Your task to perform on an android device: Clear all items from cart on ebay. Add logitech g933 to the cart on ebay, then select checkout. Image 0: 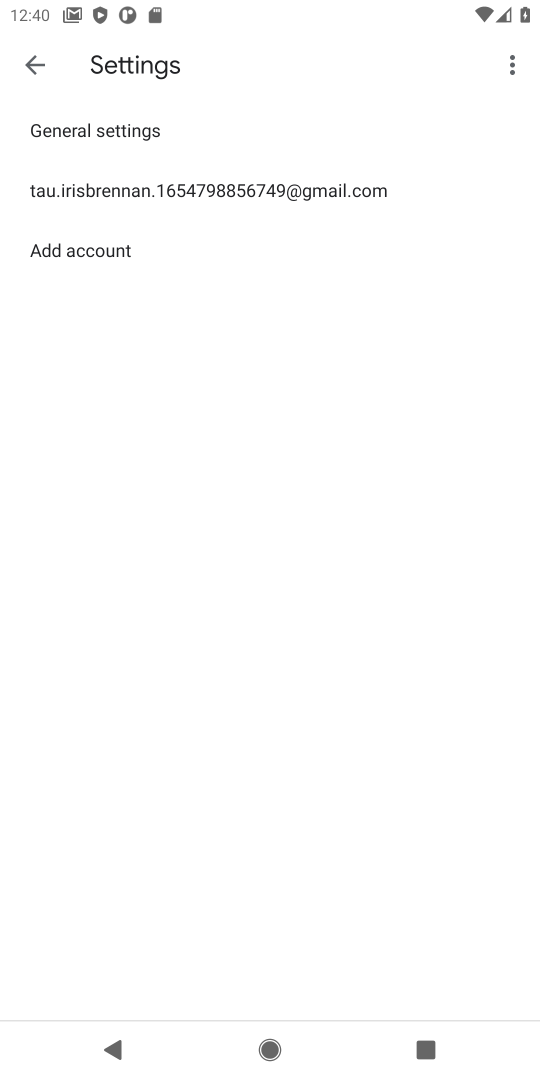
Step 0: press home button
Your task to perform on an android device: Clear all items from cart on ebay. Add logitech g933 to the cart on ebay, then select checkout. Image 1: 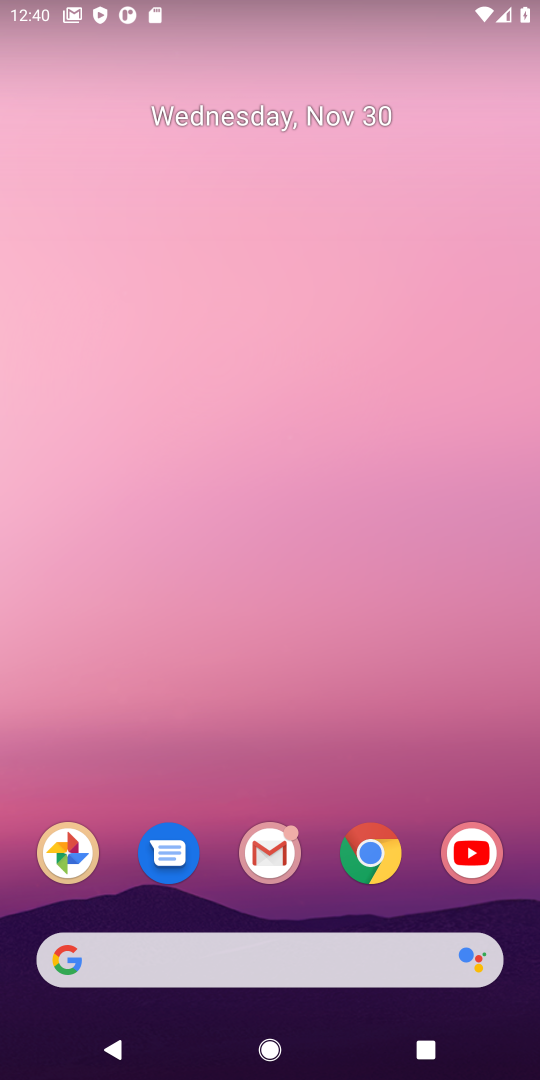
Step 1: click (375, 852)
Your task to perform on an android device: Clear all items from cart on ebay. Add logitech g933 to the cart on ebay, then select checkout. Image 2: 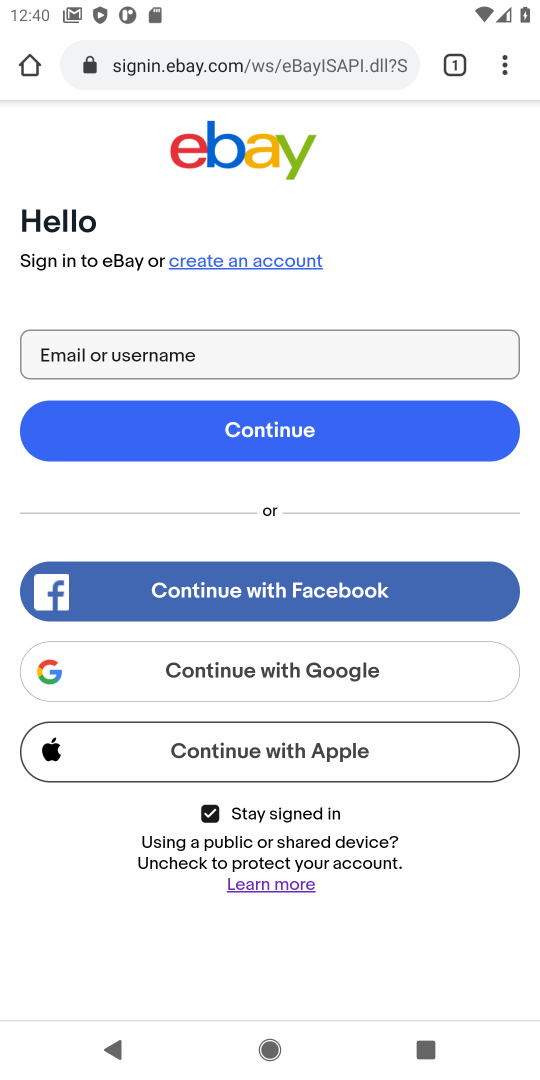
Step 2: press back button
Your task to perform on an android device: Clear all items from cart on ebay. Add logitech g933 to the cart on ebay, then select checkout. Image 3: 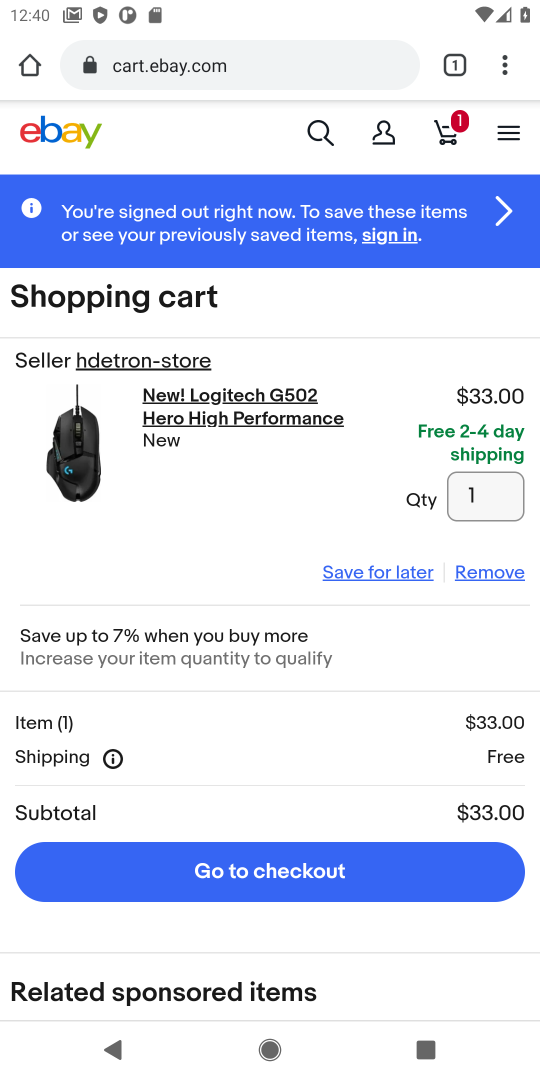
Step 3: click (485, 573)
Your task to perform on an android device: Clear all items from cart on ebay. Add logitech g933 to the cart on ebay, then select checkout. Image 4: 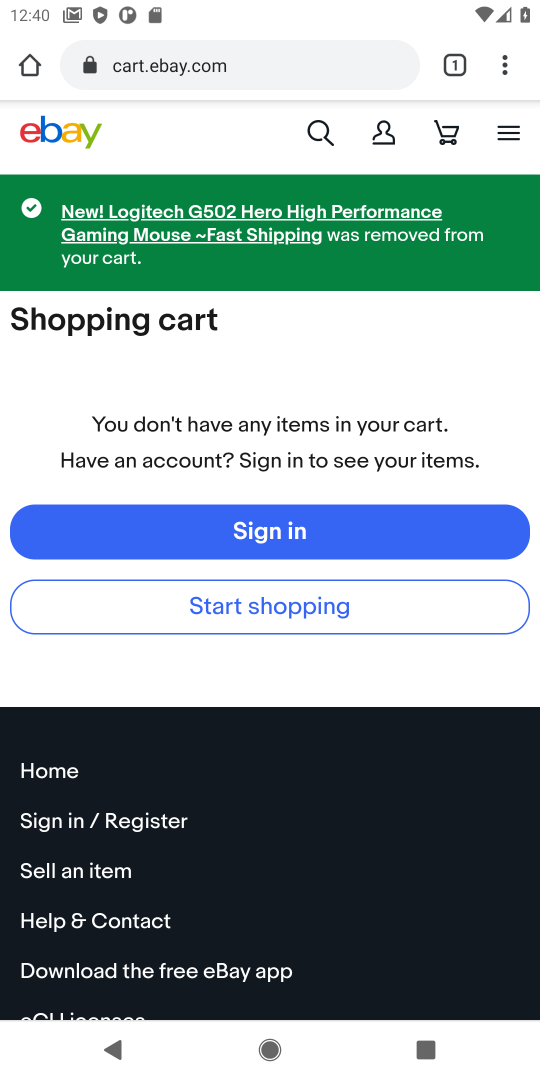
Step 4: click (319, 134)
Your task to perform on an android device: Clear all items from cart on ebay. Add logitech g933 to the cart on ebay, then select checkout. Image 5: 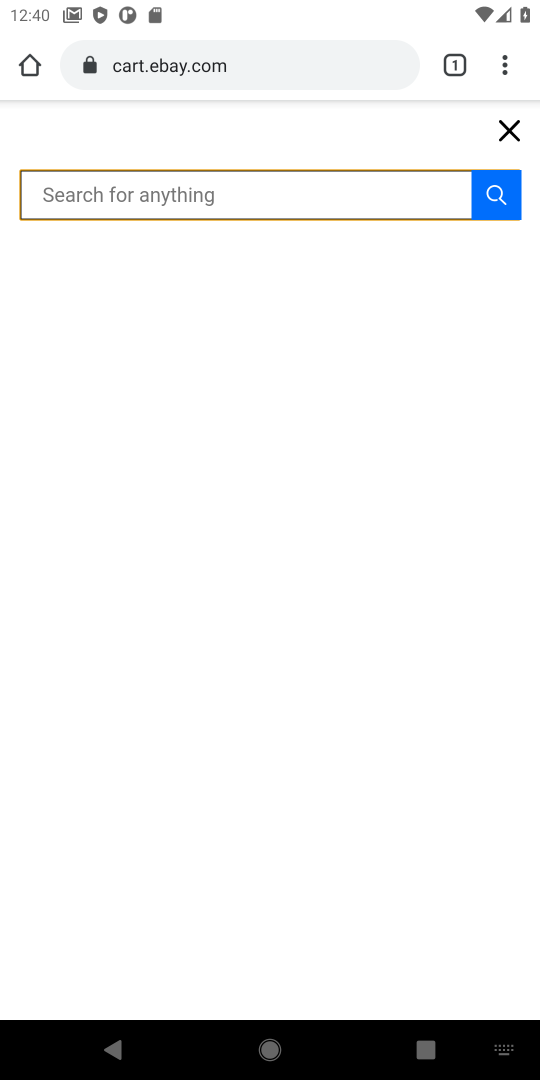
Step 5: type "logitech g933"
Your task to perform on an android device: Clear all items from cart on ebay. Add logitech g933 to the cart on ebay, then select checkout. Image 6: 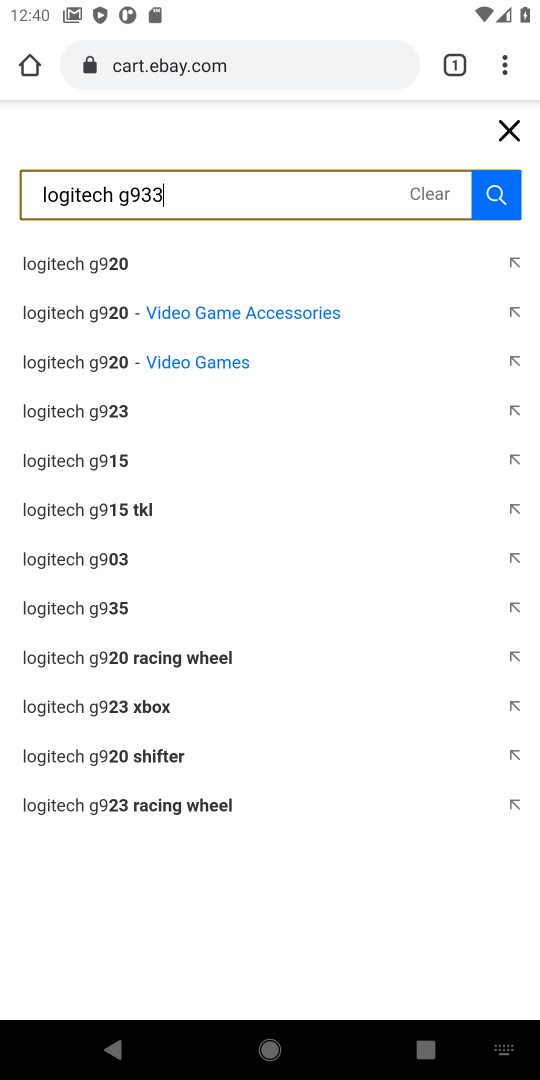
Step 6: click (499, 210)
Your task to perform on an android device: Clear all items from cart on ebay. Add logitech g933 to the cart on ebay, then select checkout. Image 7: 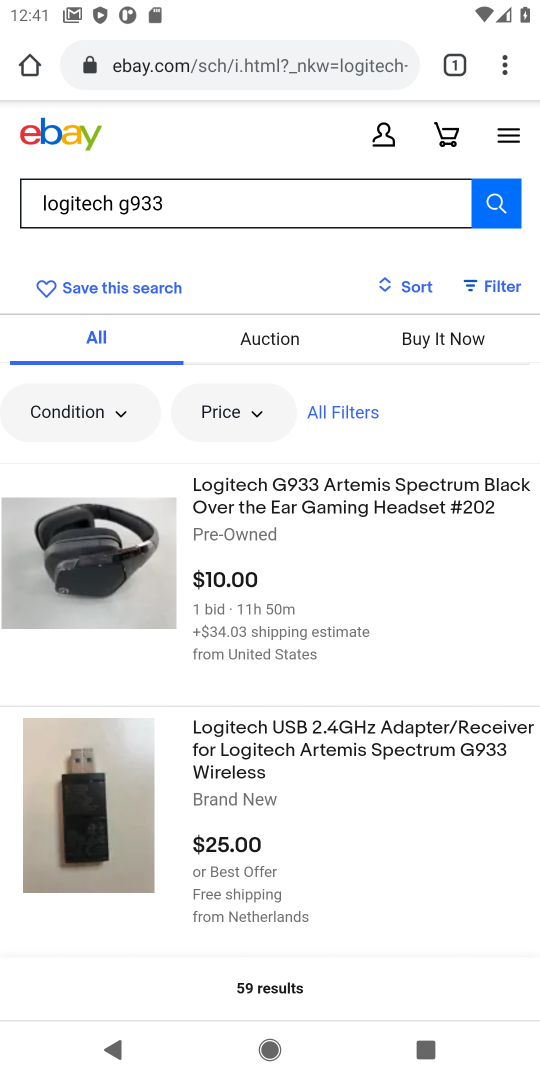
Step 7: drag from (338, 639) to (373, 481)
Your task to perform on an android device: Clear all items from cart on ebay. Add logitech g933 to the cart on ebay, then select checkout. Image 8: 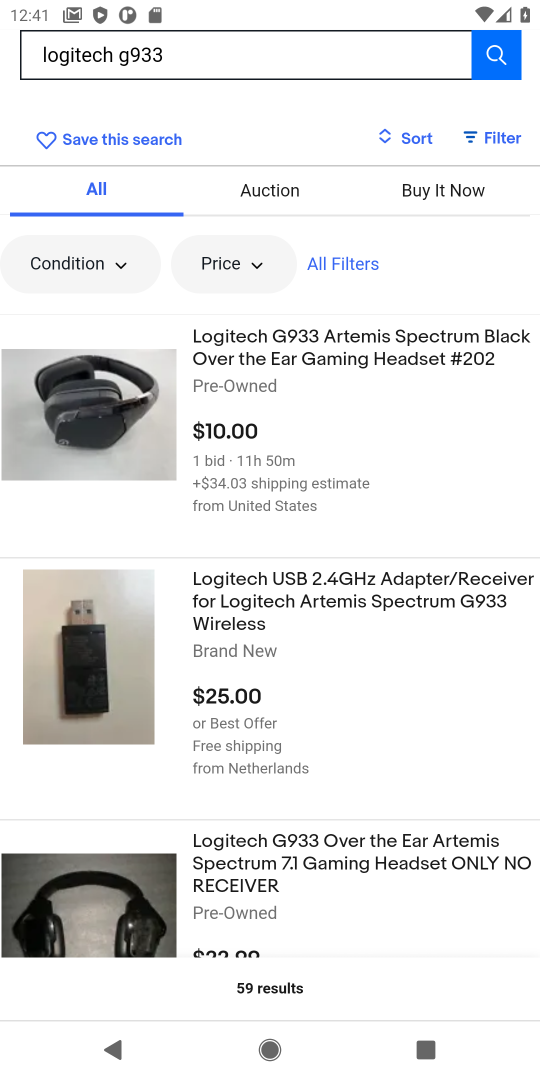
Step 8: click (212, 632)
Your task to perform on an android device: Clear all items from cart on ebay. Add logitech g933 to the cart on ebay, then select checkout. Image 9: 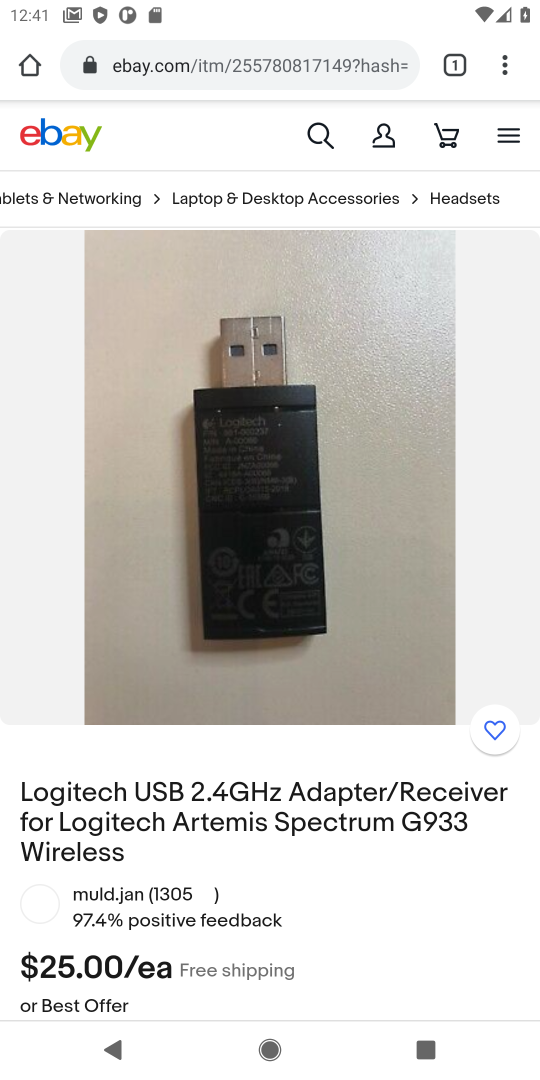
Step 9: drag from (254, 766) to (263, 308)
Your task to perform on an android device: Clear all items from cart on ebay. Add logitech g933 to the cart on ebay, then select checkout. Image 10: 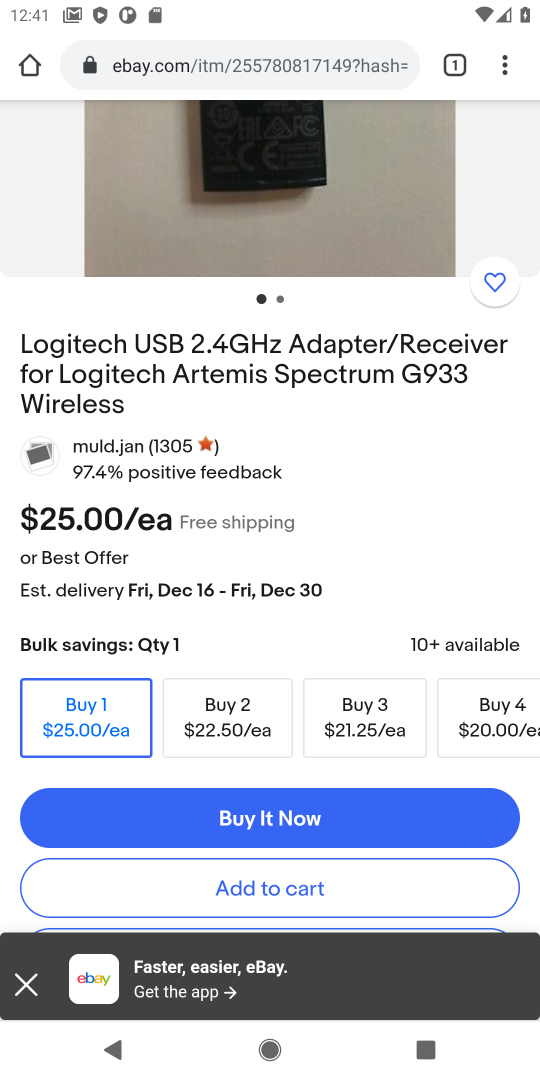
Step 10: click (228, 881)
Your task to perform on an android device: Clear all items from cart on ebay. Add logitech g933 to the cart on ebay, then select checkout. Image 11: 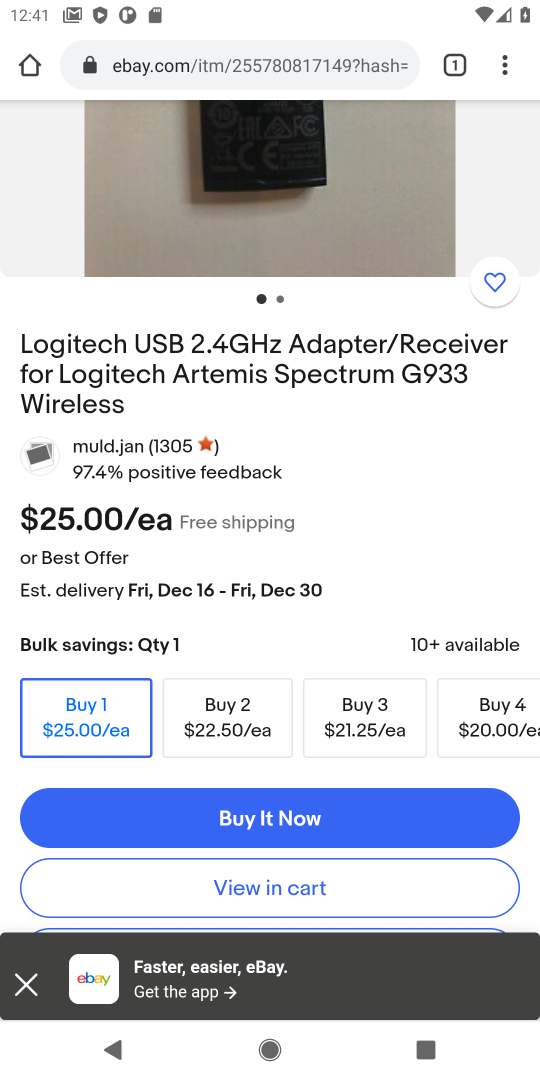
Step 11: click (228, 881)
Your task to perform on an android device: Clear all items from cart on ebay. Add logitech g933 to the cart on ebay, then select checkout. Image 12: 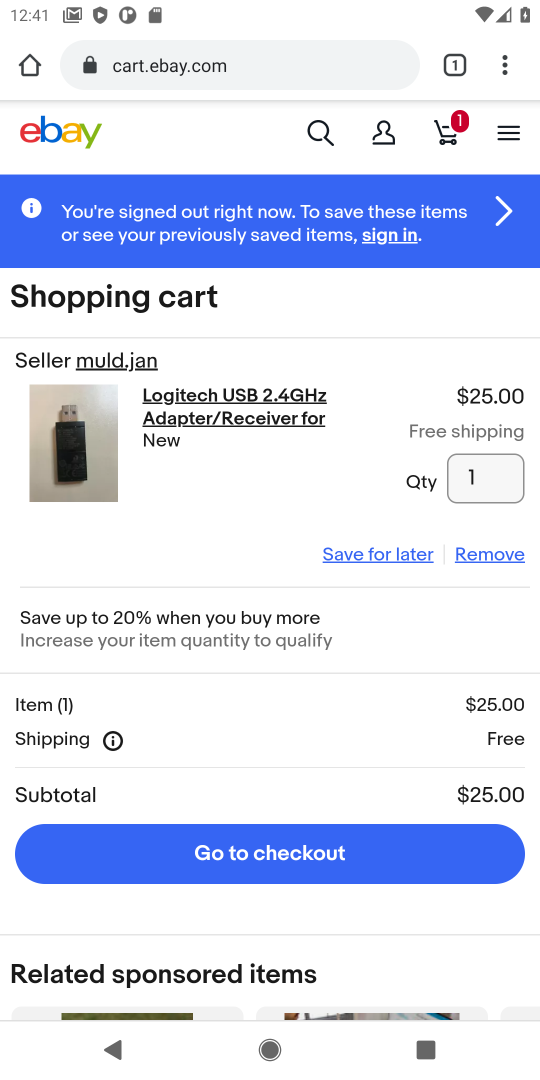
Step 12: click (259, 857)
Your task to perform on an android device: Clear all items from cart on ebay. Add logitech g933 to the cart on ebay, then select checkout. Image 13: 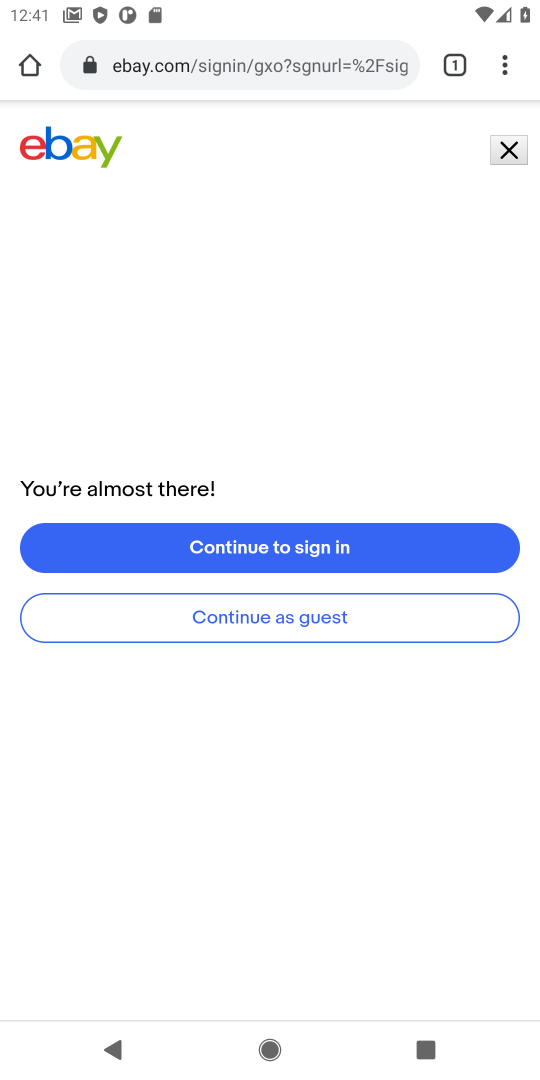
Step 13: task complete